Your task to perform on an android device: check out phone information Image 0: 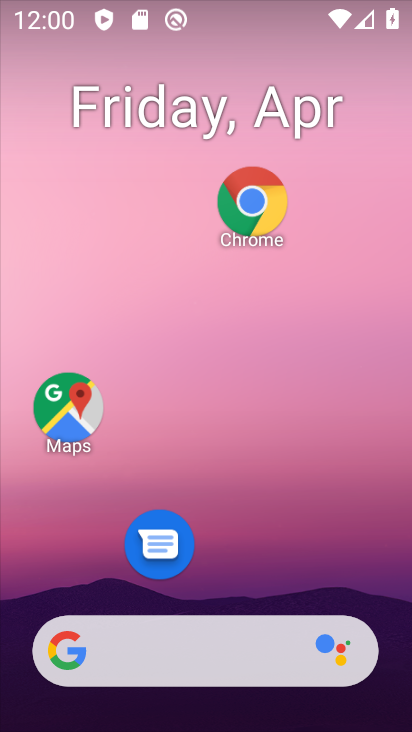
Step 0: drag from (253, 586) to (219, 14)
Your task to perform on an android device: check out phone information Image 1: 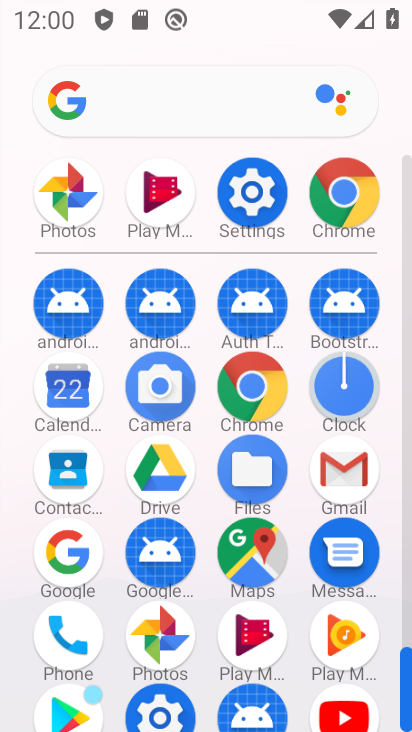
Step 1: click (145, 708)
Your task to perform on an android device: check out phone information Image 2: 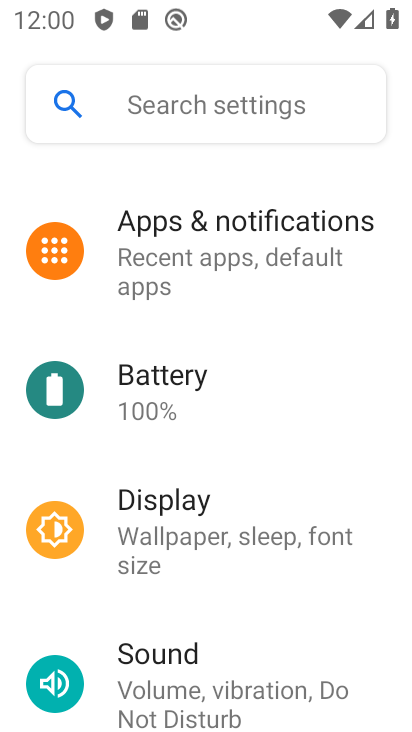
Step 2: drag from (222, 603) to (171, 11)
Your task to perform on an android device: check out phone information Image 3: 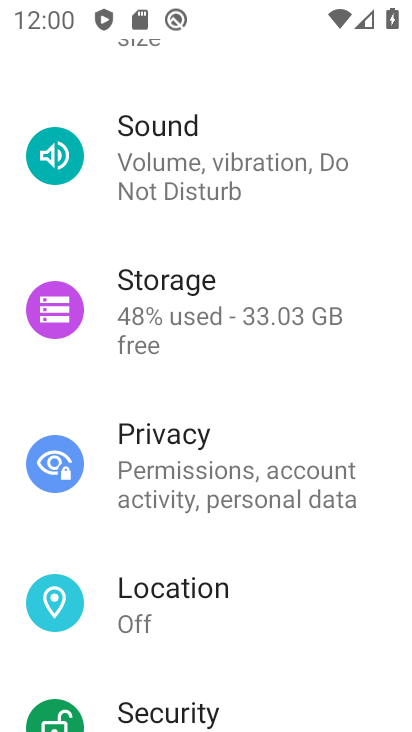
Step 3: drag from (233, 628) to (189, 32)
Your task to perform on an android device: check out phone information Image 4: 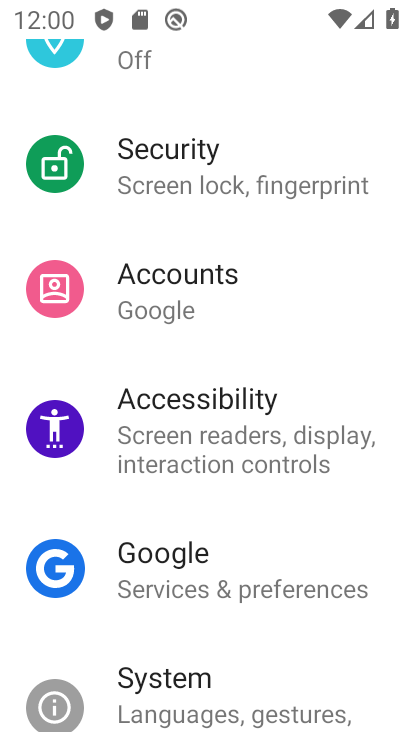
Step 4: drag from (260, 659) to (209, 172)
Your task to perform on an android device: check out phone information Image 5: 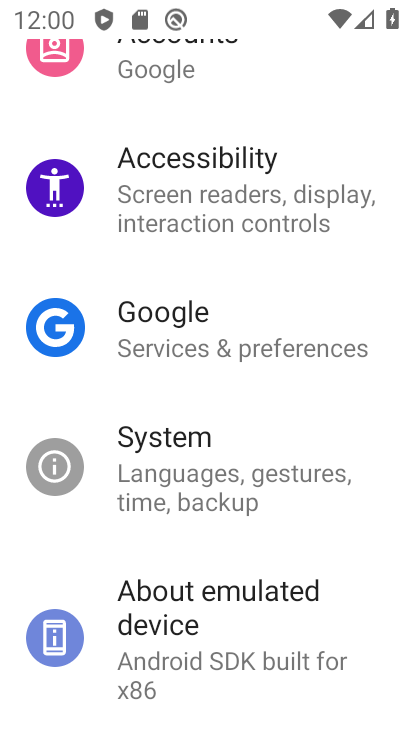
Step 5: click (208, 669)
Your task to perform on an android device: check out phone information Image 6: 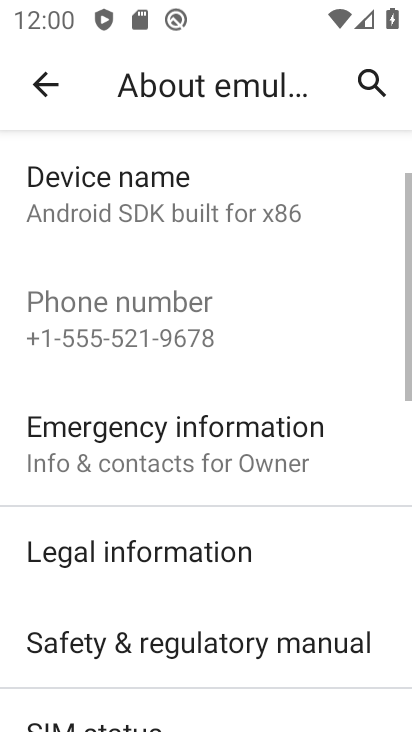
Step 6: task complete